Your task to perform on an android device: open sync settings in chrome Image 0: 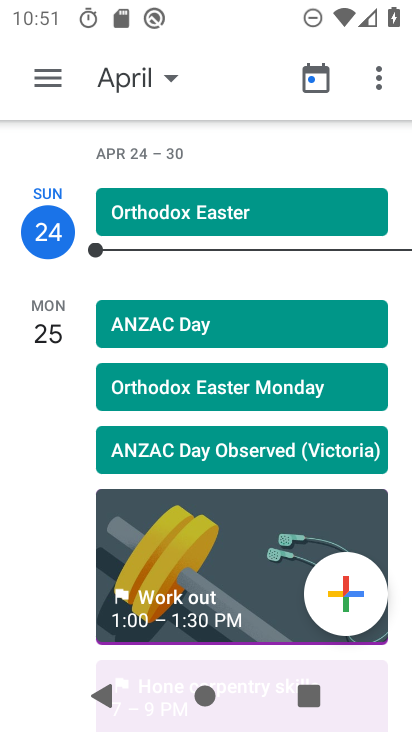
Step 0: press home button
Your task to perform on an android device: open sync settings in chrome Image 1: 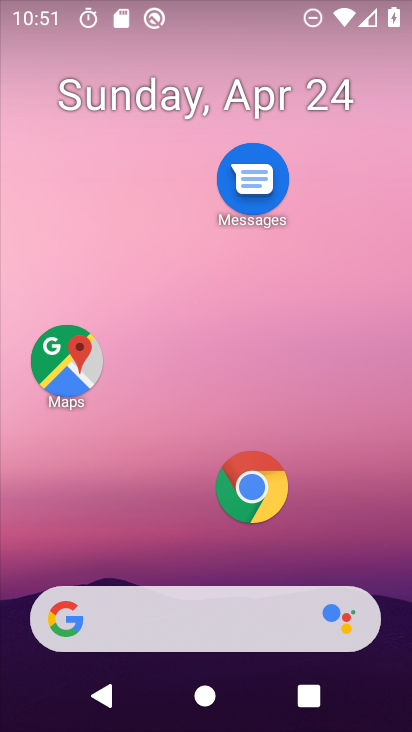
Step 1: click (253, 491)
Your task to perform on an android device: open sync settings in chrome Image 2: 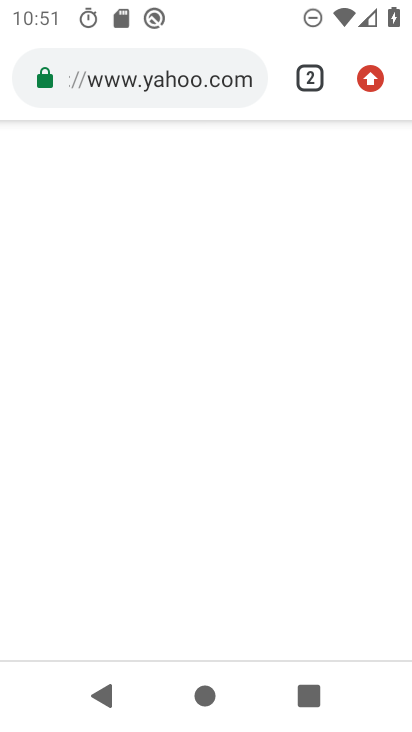
Step 2: click (364, 86)
Your task to perform on an android device: open sync settings in chrome Image 3: 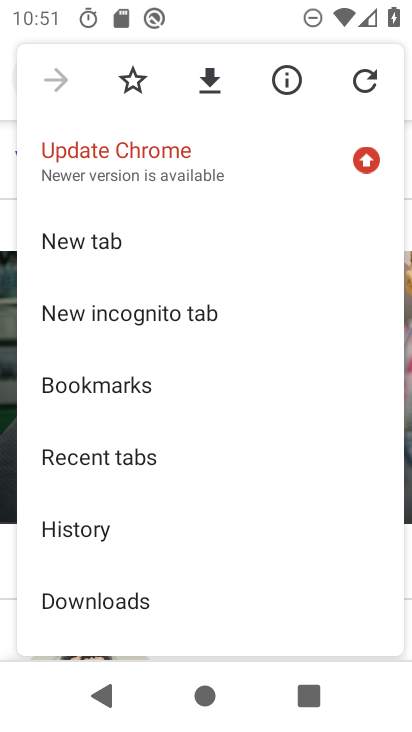
Step 3: drag from (126, 557) to (184, 115)
Your task to perform on an android device: open sync settings in chrome Image 4: 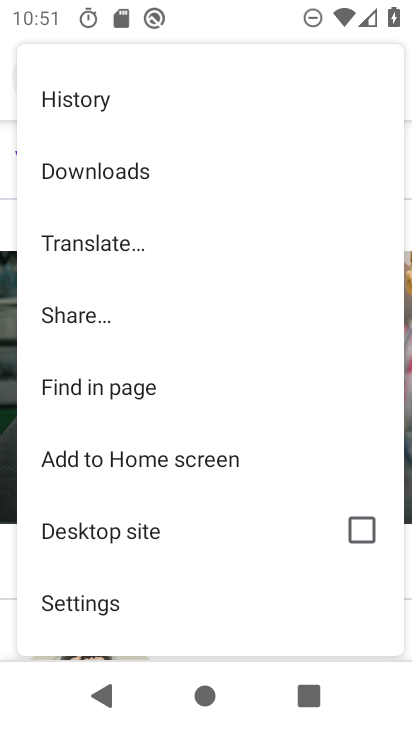
Step 4: click (87, 602)
Your task to perform on an android device: open sync settings in chrome Image 5: 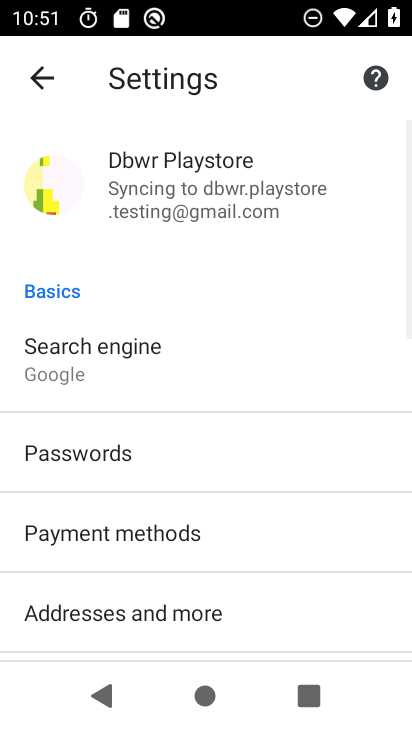
Step 5: click (174, 210)
Your task to perform on an android device: open sync settings in chrome Image 6: 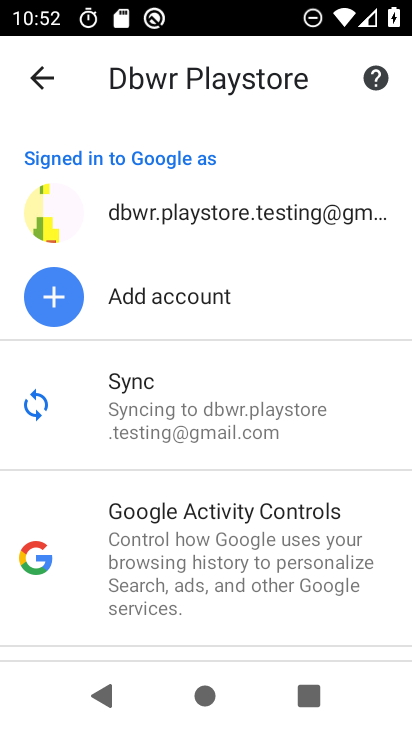
Step 6: click (154, 419)
Your task to perform on an android device: open sync settings in chrome Image 7: 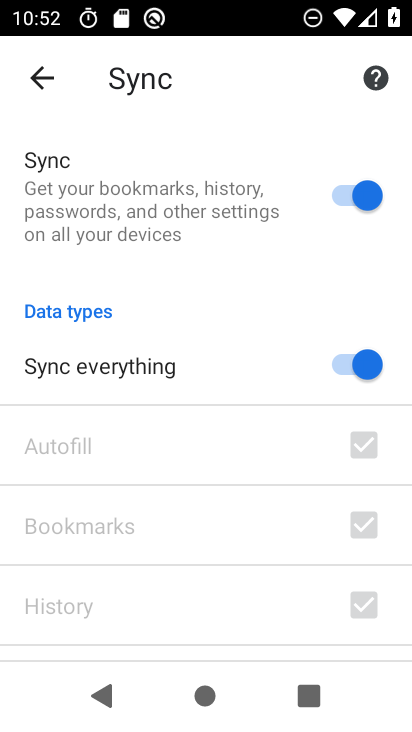
Step 7: task complete